Your task to perform on an android device: open app "eBay: The shopping marketplace" Image 0: 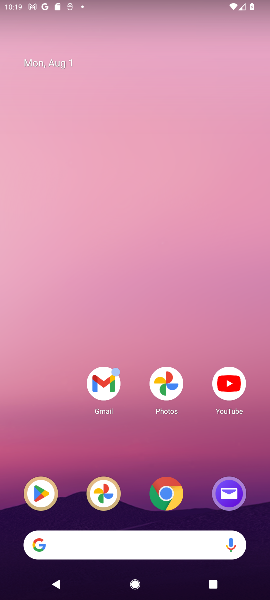
Step 0: click (53, 497)
Your task to perform on an android device: open app "eBay: The shopping marketplace" Image 1: 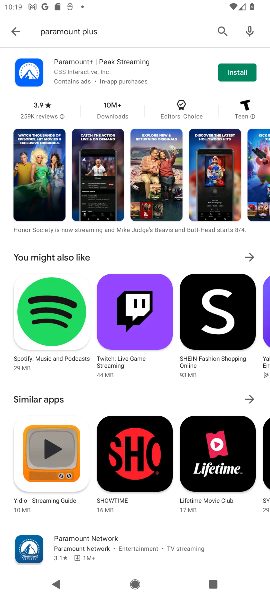
Step 1: click (227, 38)
Your task to perform on an android device: open app "eBay: The shopping marketplace" Image 2: 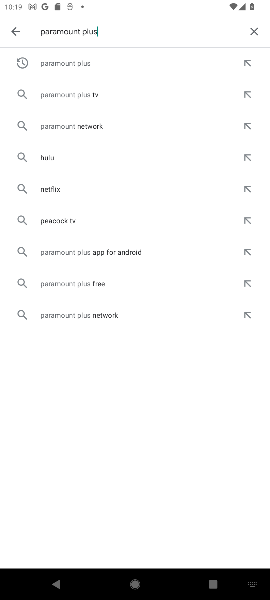
Step 2: click (260, 34)
Your task to perform on an android device: open app "eBay: The shopping marketplace" Image 3: 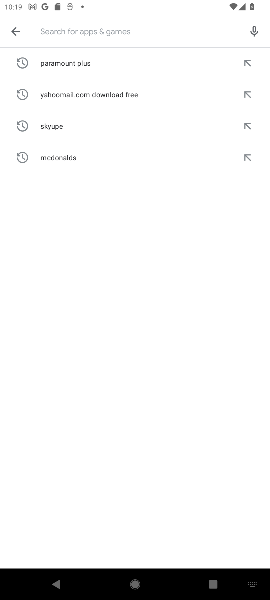
Step 3: type "ebay"
Your task to perform on an android device: open app "eBay: The shopping marketplace" Image 4: 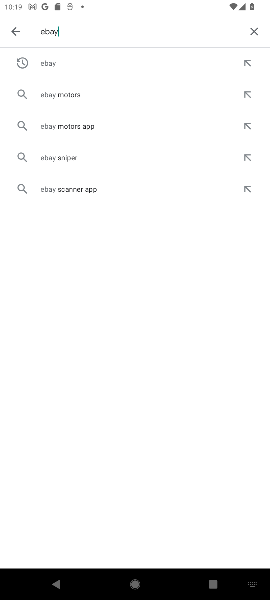
Step 4: click (134, 62)
Your task to perform on an android device: open app "eBay: The shopping marketplace" Image 5: 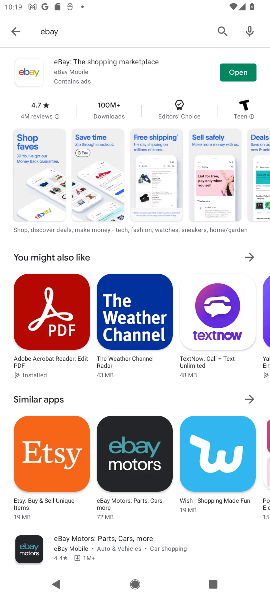
Step 5: click (240, 80)
Your task to perform on an android device: open app "eBay: The shopping marketplace" Image 6: 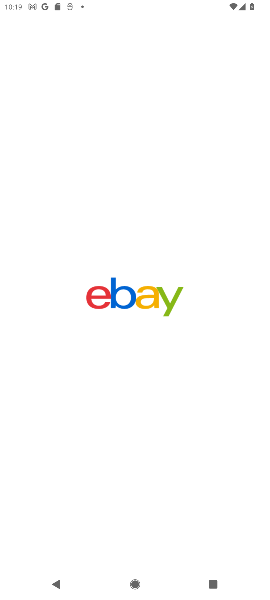
Step 6: task complete